Your task to perform on an android device: What is the capital of China? Image 0: 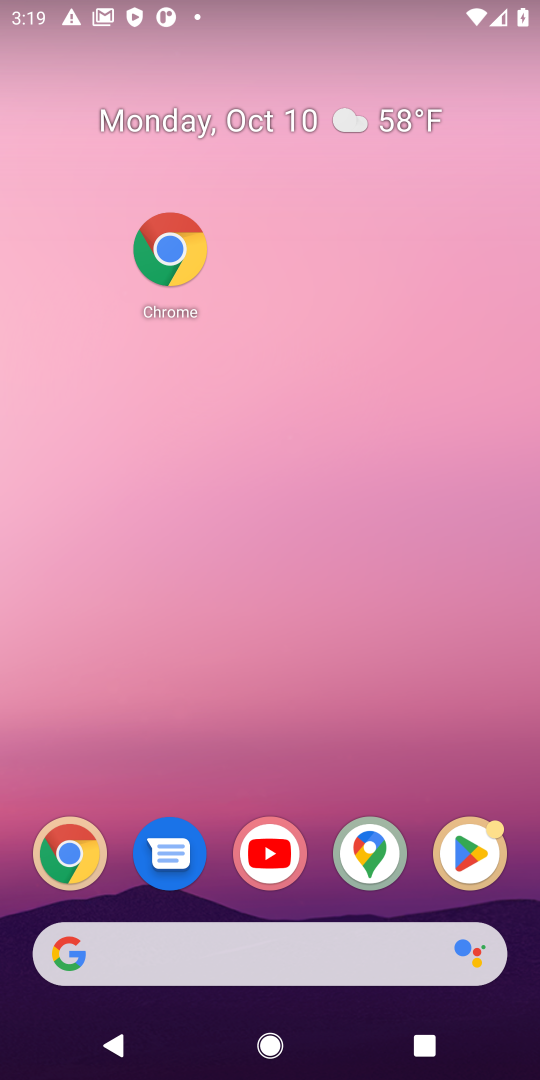
Step 0: click (188, 273)
Your task to perform on an android device: What is the capital of China? Image 1: 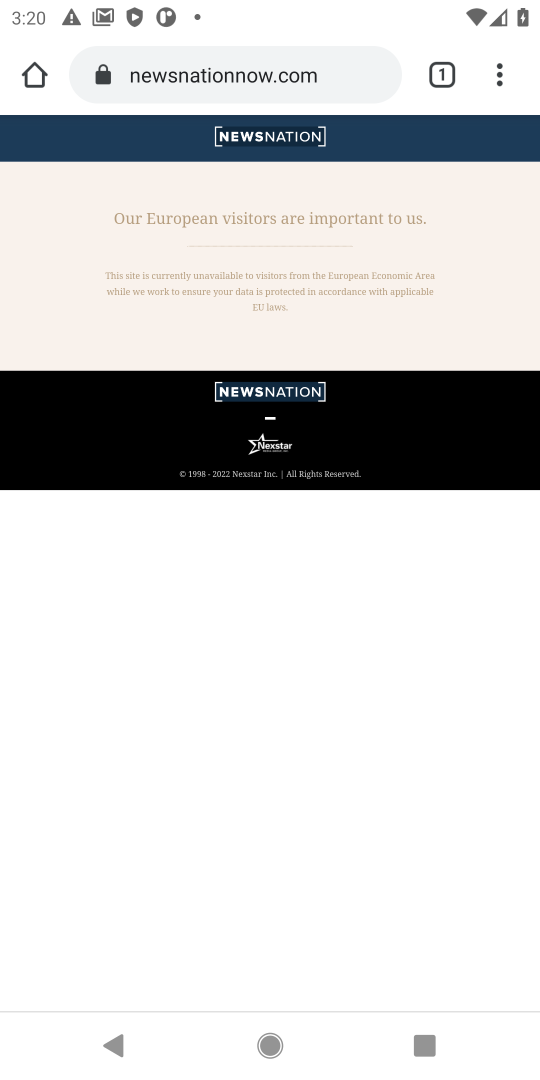
Step 1: drag from (382, 1078) to (518, 906)
Your task to perform on an android device: What is the capital of China? Image 2: 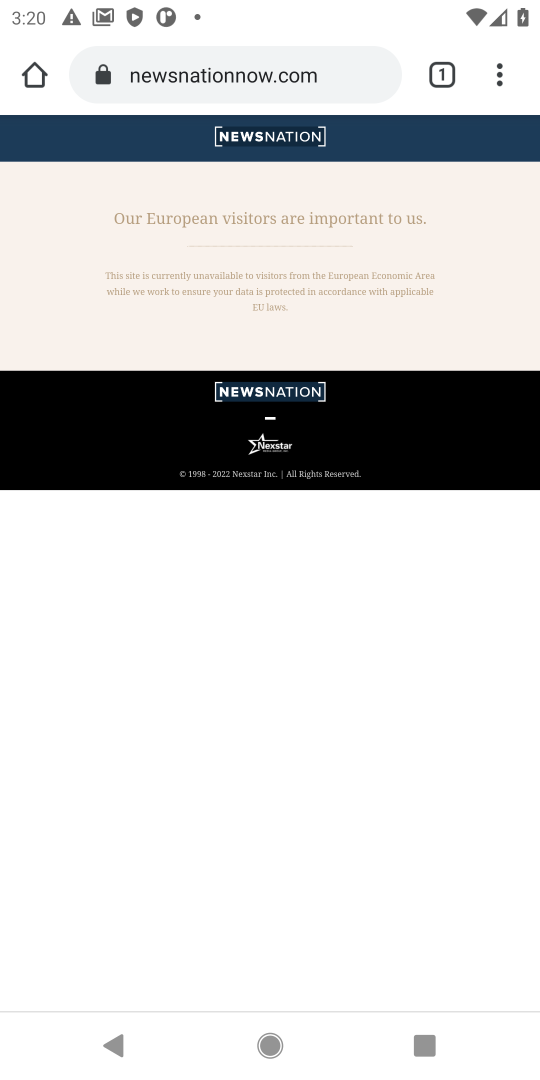
Step 2: click (318, 69)
Your task to perform on an android device: What is the capital of China? Image 3: 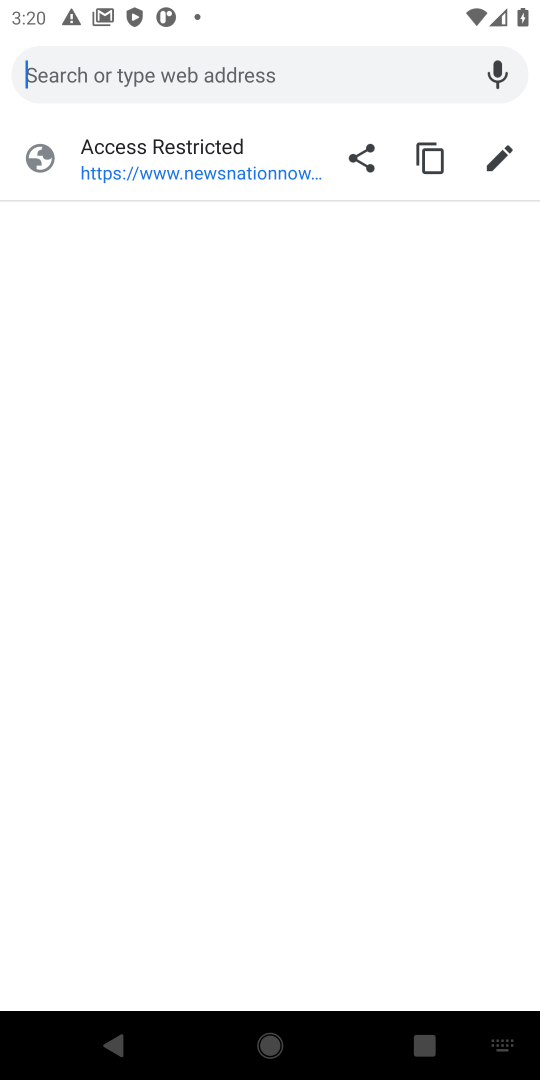
Step 3: type "What is the capital of China?"
Your task to perform on an android device: What is the capital of China? Image 4: 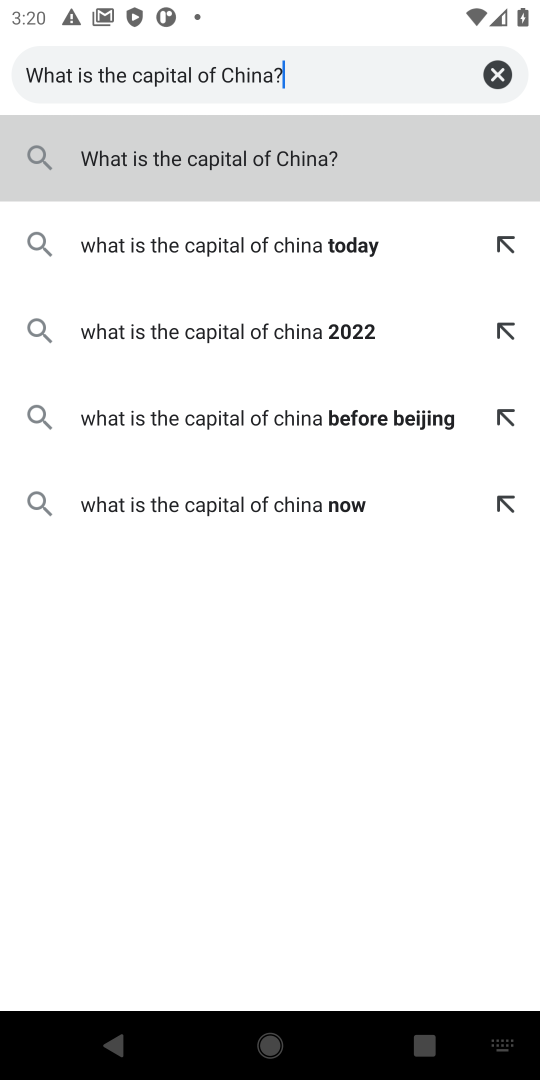
Step 4: click (347, 169)
Your task to perform on an android device: What is the capital of China? Image 5: 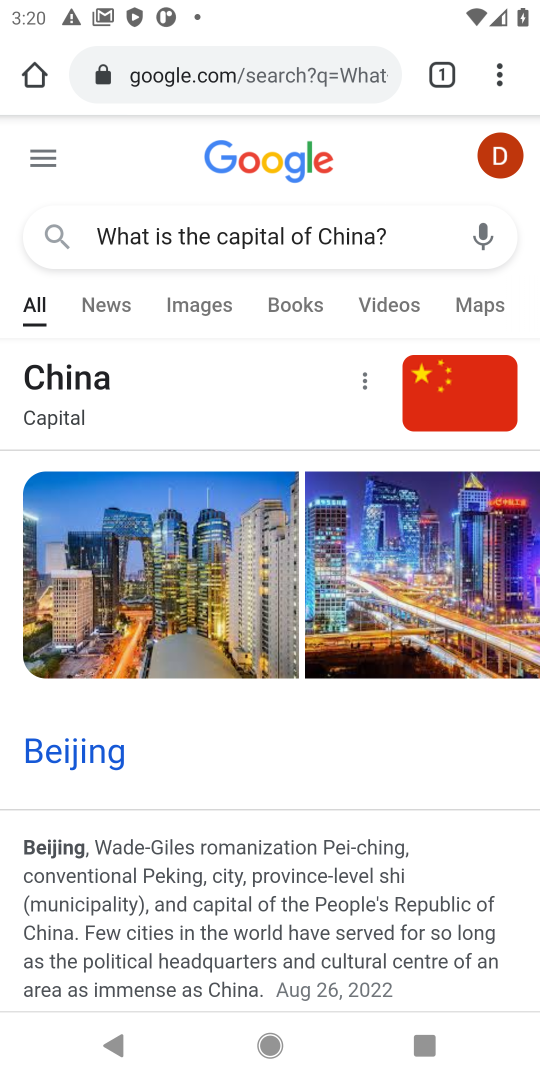
Step 5: task complete